Your task to perform on an android device: set the timer Image 0: 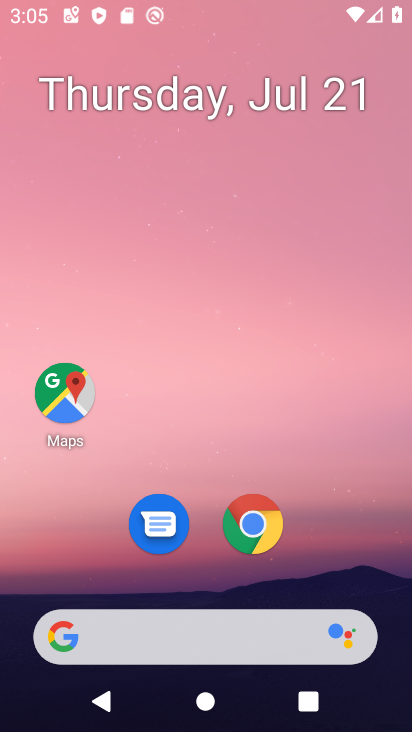
Step 0: press home button
Your task to perform on an android device: set the timer Image 1: 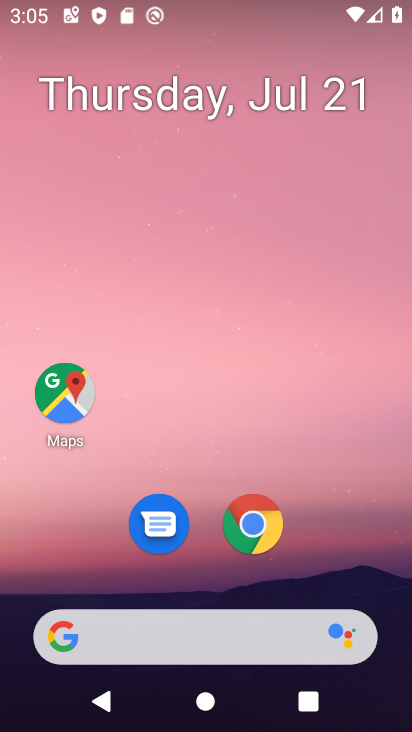
Step 1: drag from (224, 628) to (322, 2)
Your task to perform on an android device: set the timer Image 2: 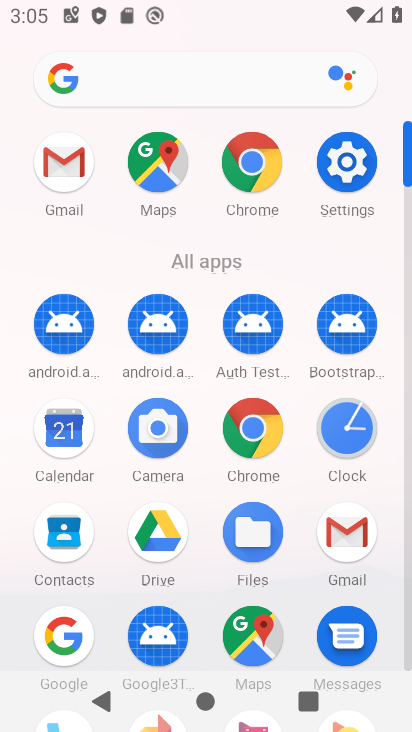
Step 2: click (343, 441)
Your task to perform on an android device: set the timer Image 3: 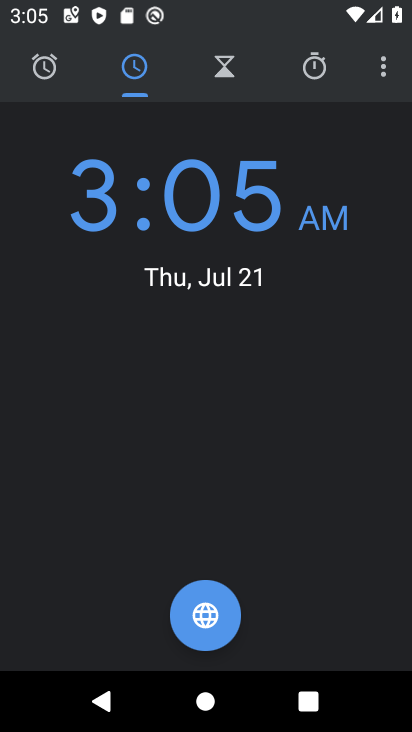
Step 3: click (229, 81)
Your task to perform on an android device: set the timer Image 4: 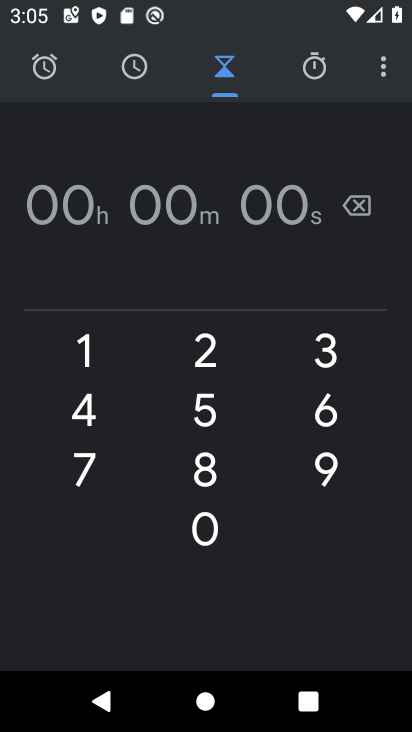
Step 4: click (92, 418)
Your task to perform on an android device: set the timer Image 5: 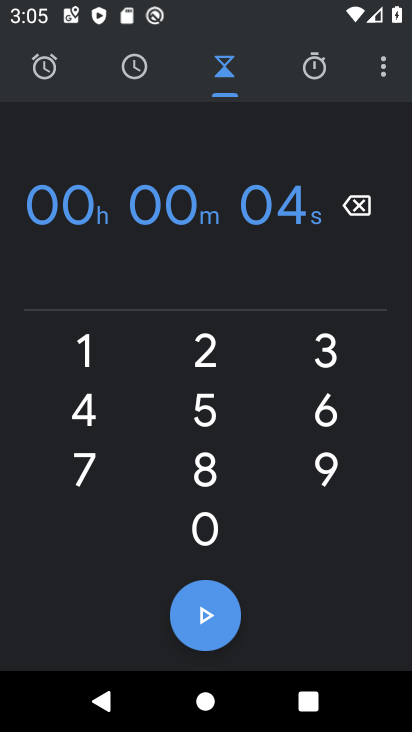
Step 5: click (89, 464)
Your task to perform on an android device: set the timer Image 6: 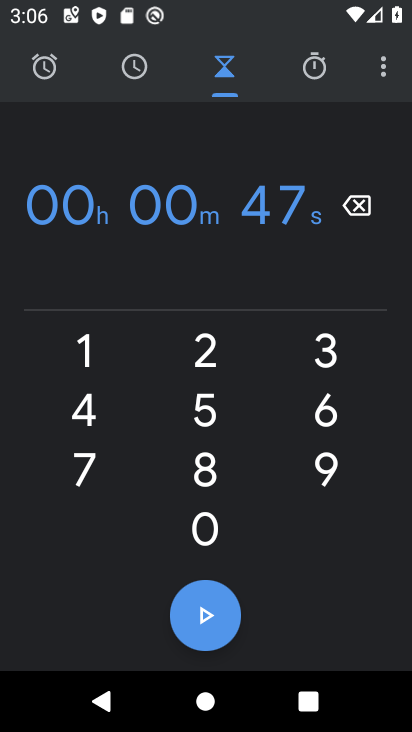
Step 6: click (196, 611)
Your task to perform on an android device: set the timer Image 7: 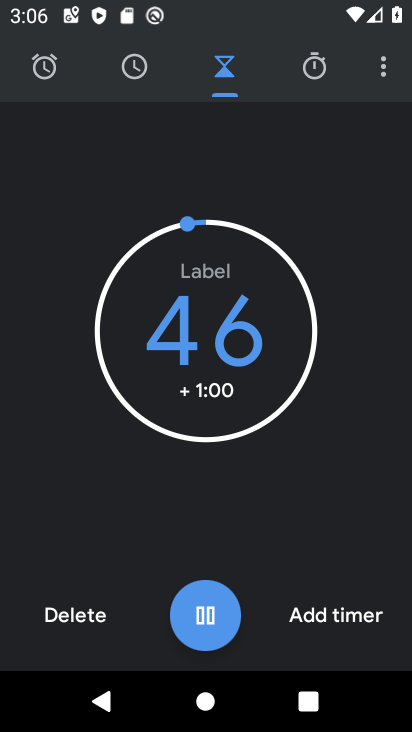
Step 7: click (193, 603)
Your task to perform on an android device: set the timer Image 8: 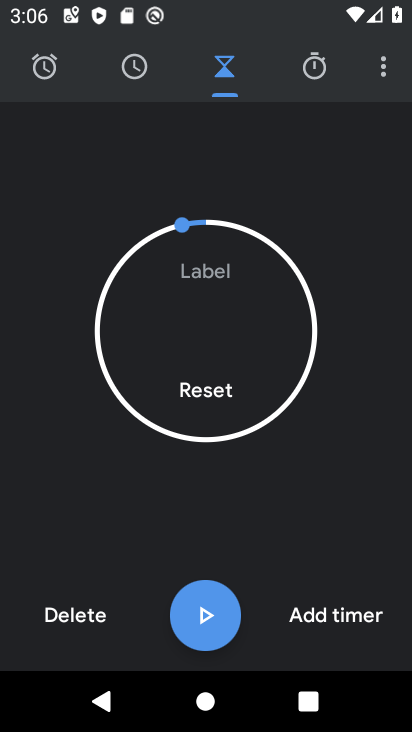
Step 8: task complete